Your task to perform on an android device: check data usage Image 0: 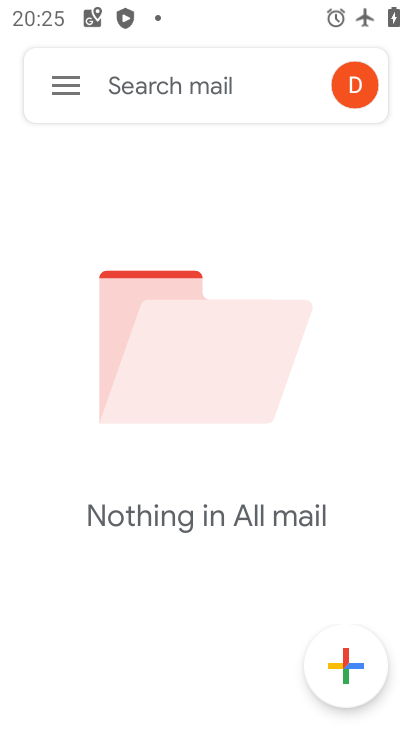
Step 0: drag from (208, 596) to (232, 14)
Your task to perform on an android device: check data usage Image 1: 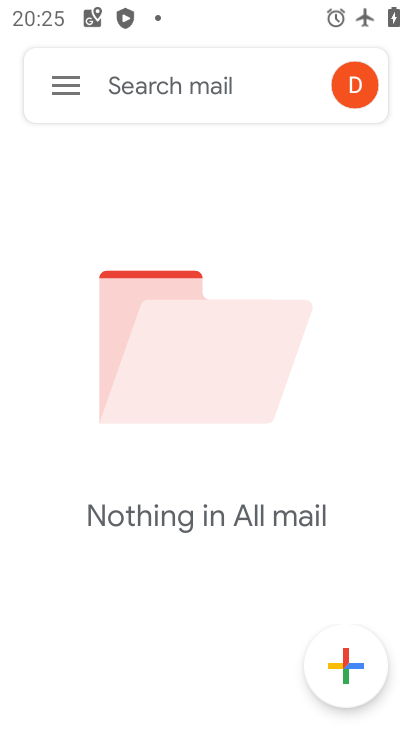
Step 1: press home button
Your task to perform on an android device: check data usage Image 2: 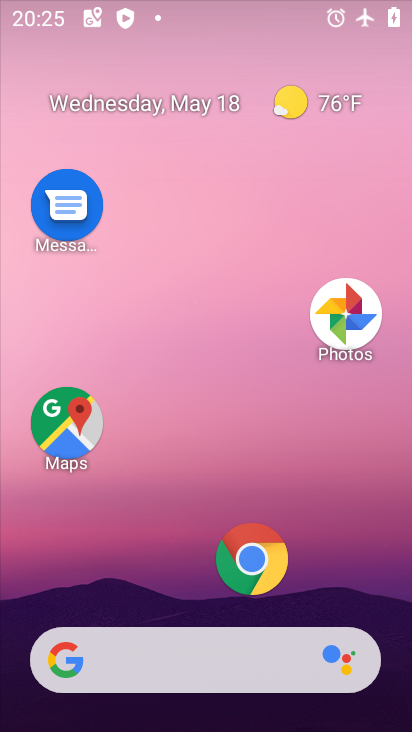
Step 2: click (140, 169)
Your task to perform on an android device: check data usage Image 3: 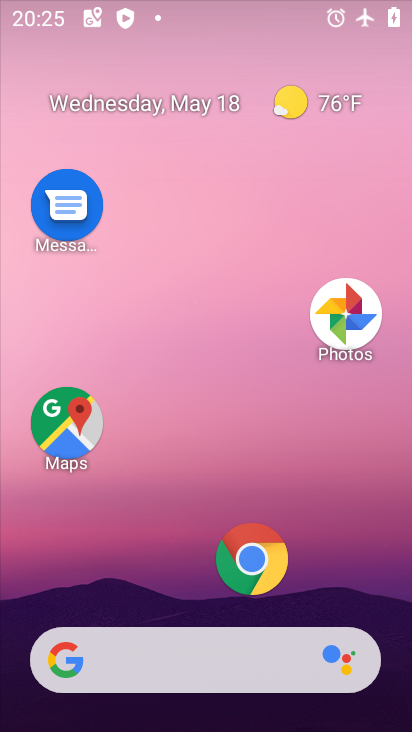
Step 3: drag from (235, 604) to (215, 83)
Your task to perform on an android device: check data usage Image 4: 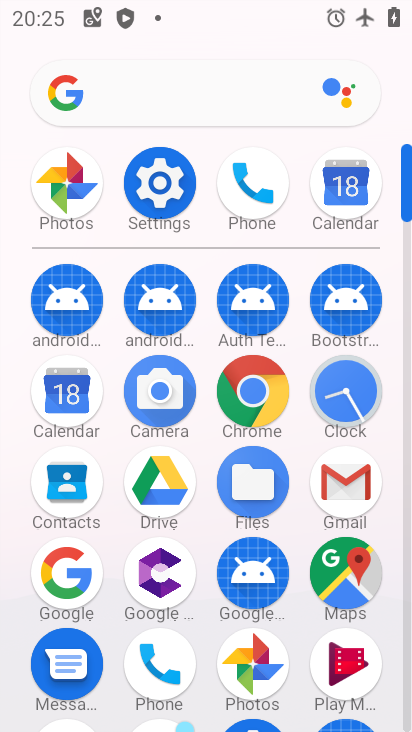
Step 4: drag from (255, 218) to (223, 647)
Your task to perform on an android device: check data usage Image 5: 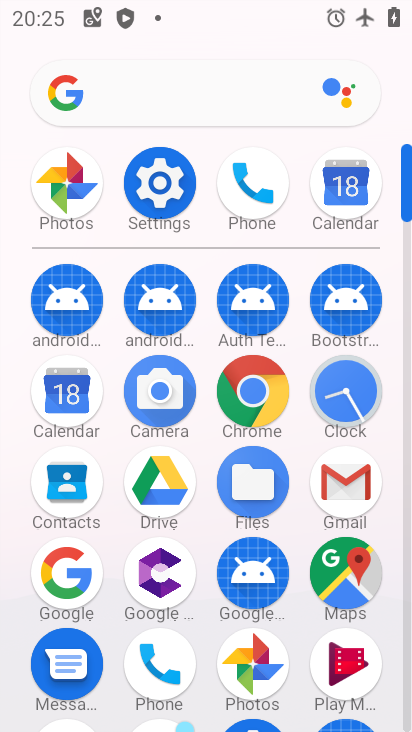
Step 5: click (175, 195)
Your task to perform on an android device: check data usage Image 6: 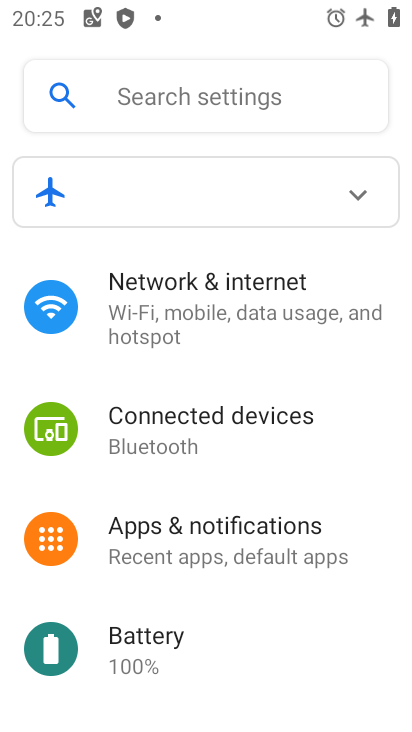
Step 6: click (196, 276)
Your task to perform on an android device: check data usage Image 7: 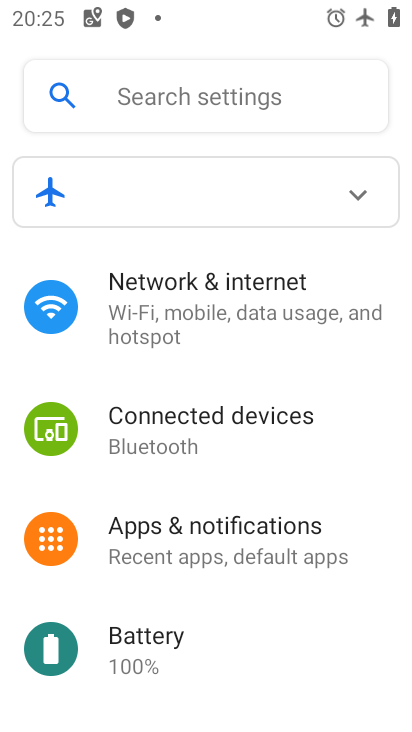
Step 7: click (224, 332)
Your task to perform on an android device: check data usage Image 8: 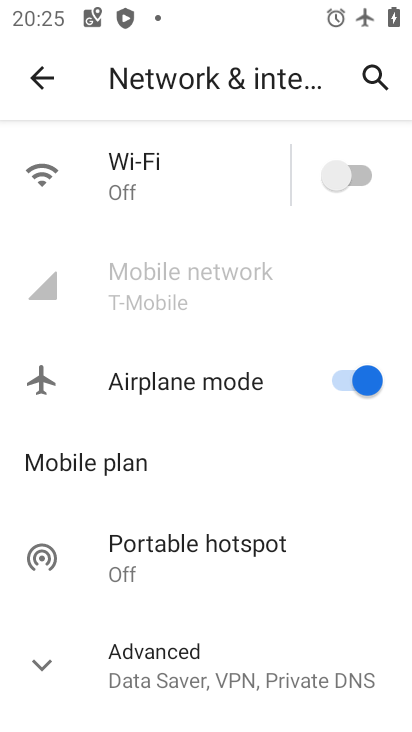
Step 8: click (192, 293)
Your task to perform on an android device: check data usage Image 9: 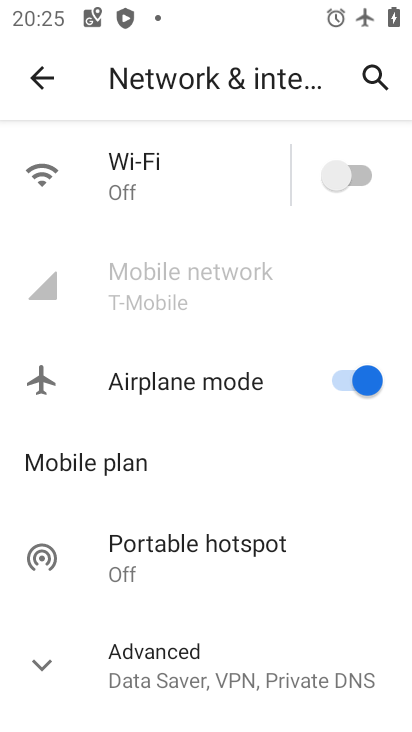
Step 9: task complete
Your task to perform on an android device: check data usage Image 10: 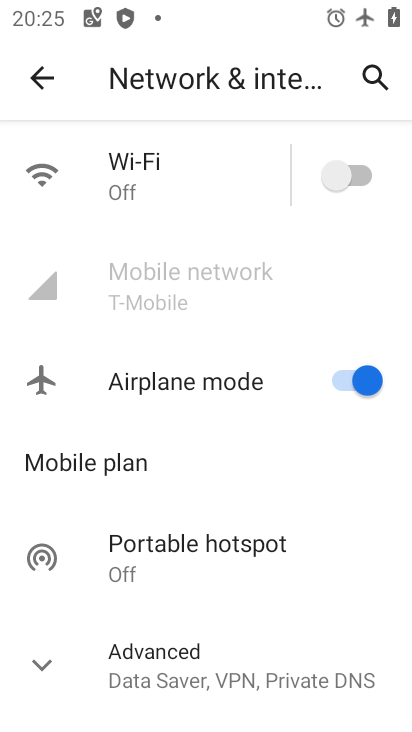
Step 10: task complete